Your task to perform on an android device: Search for "asus zenbook" on bestbuy.com, select the first entry, and add it to the cart. Image 0: 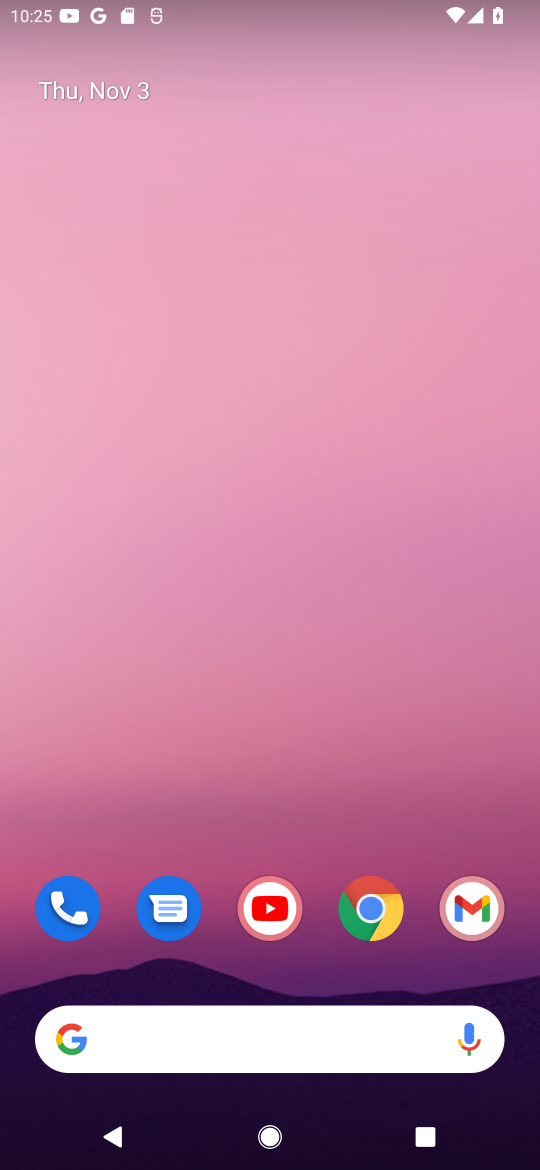
Step 0: click (379, 899)
Your task to perform on an android device: Search for "asus zenbook" on bestbuy.com, select the first entry, and add it to the cart. Image 1: 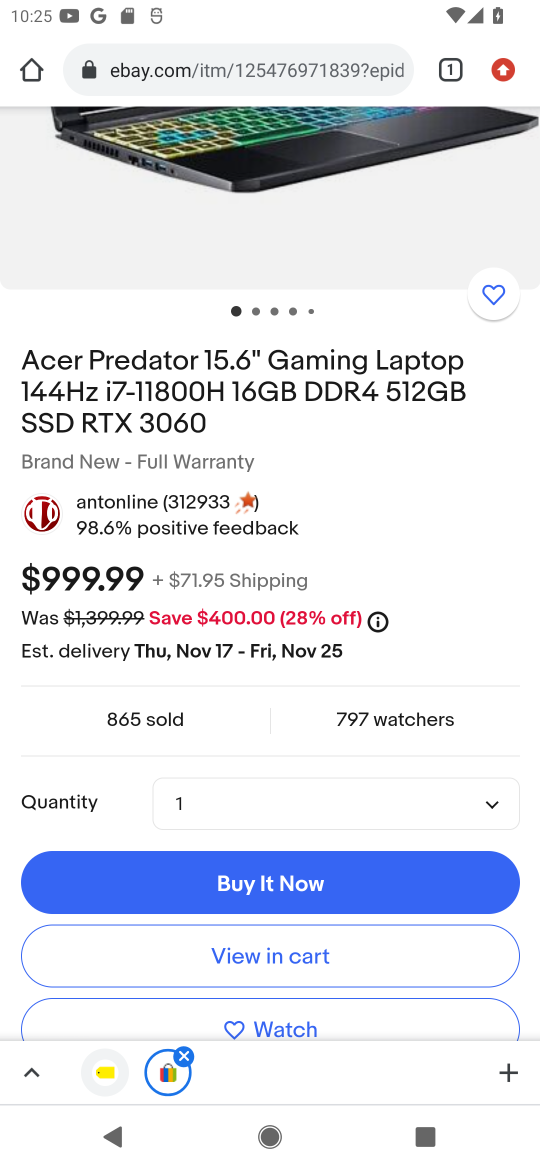
Step 1: click (245, 72)
Your task to perform on an android device: Search for "asus zenbook" on bestbuy.com, select the first entry, and add it to the cart. Image 2: 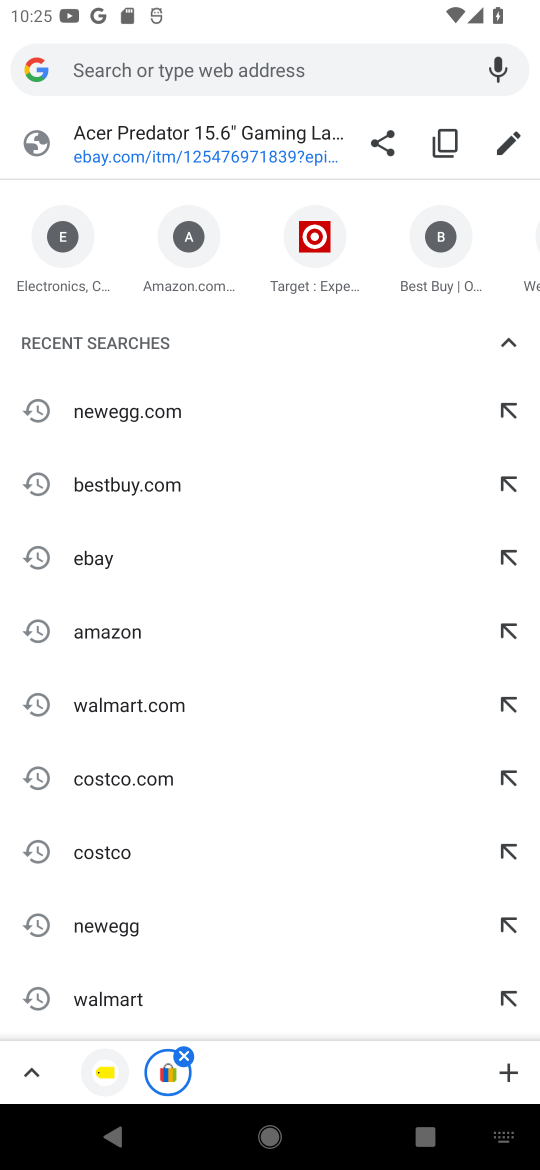
Step 2: click (130, 484)
Your task to perform on an android device: Search for "asus zenbook" on bestbuy.com, select the first entry, and add it to the cart. Image 3: 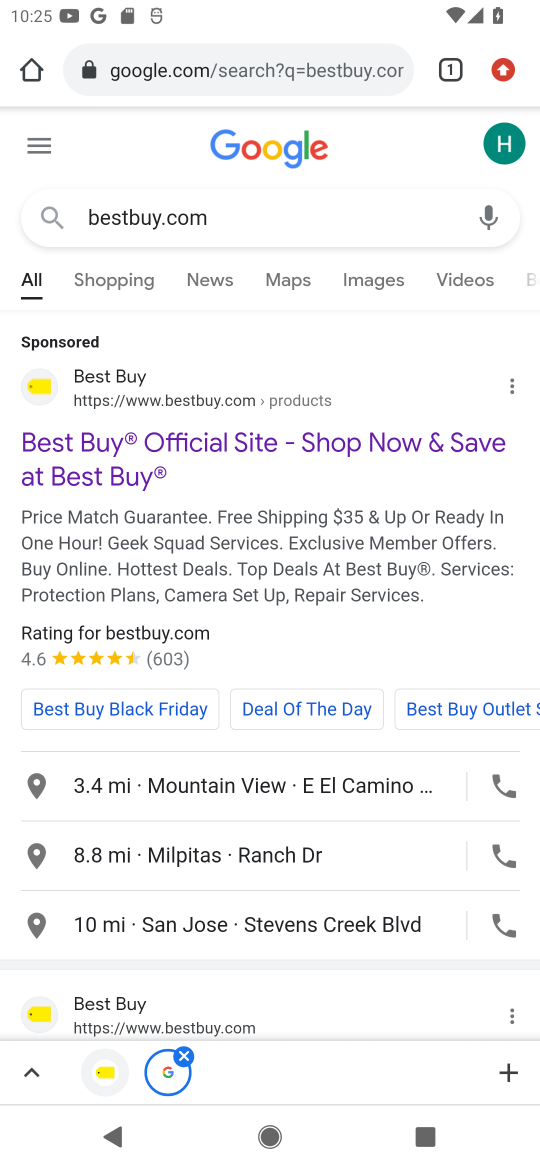
Step 3: click (215, 406)
Your task to perform on an android device: Search for "asus zenbook" on bestbuy.com, select the first entry, and add it to the cart. Image 4: 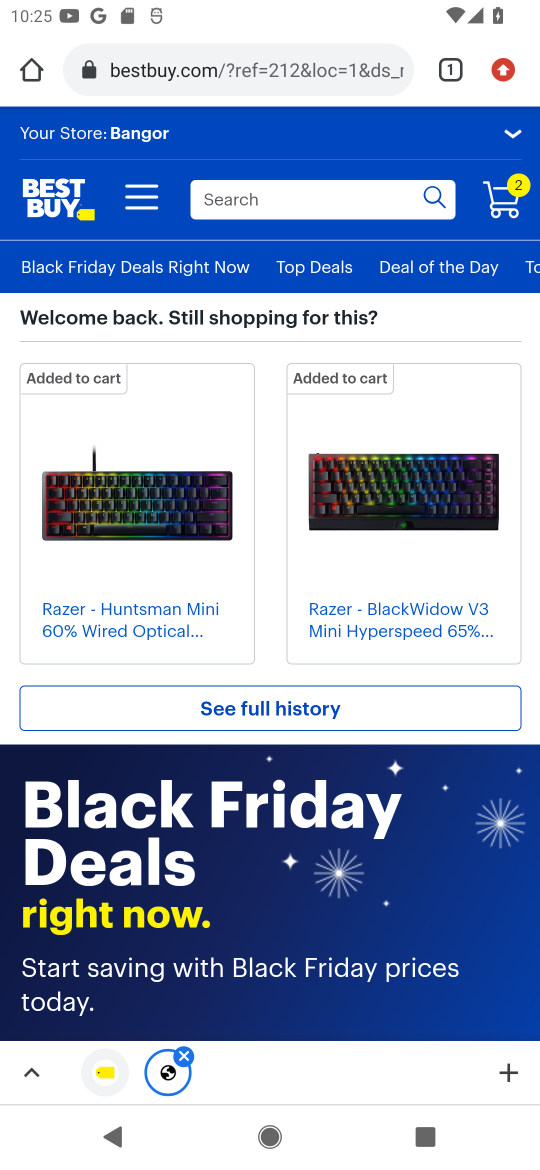
Step 4: click (325, 195)
Your task to perform on an android device: Search for "asus zenbook" on bestbuy.com, select the first entry, and add it to the cart. Image 5: 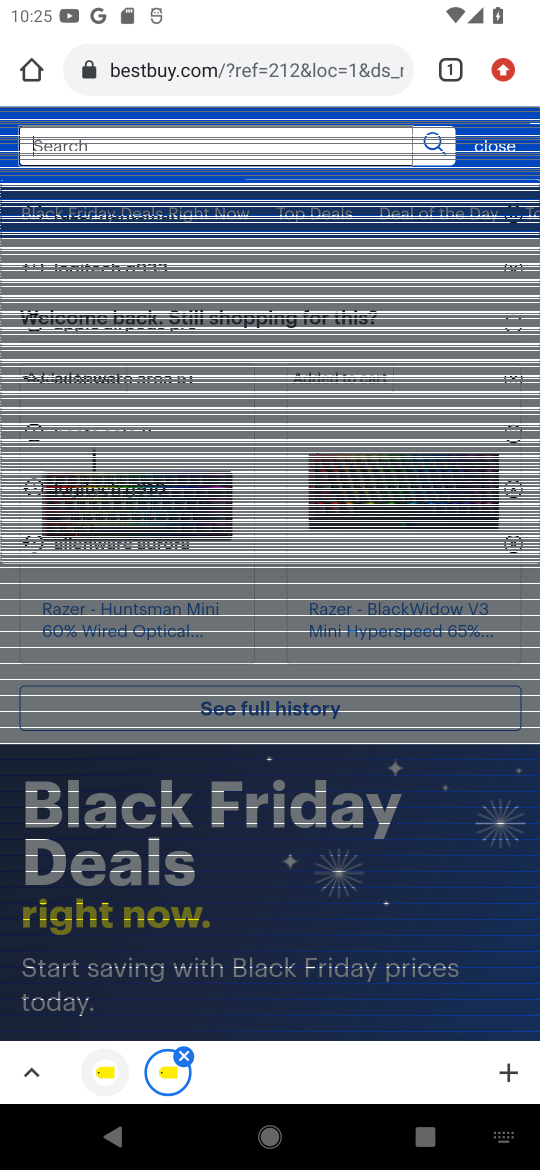
Step 5: press enter
Your task to perform on an android device: Search for "asus zenbook" on bestbuy.com, select the first entry, and add it to the cart. Image 6: 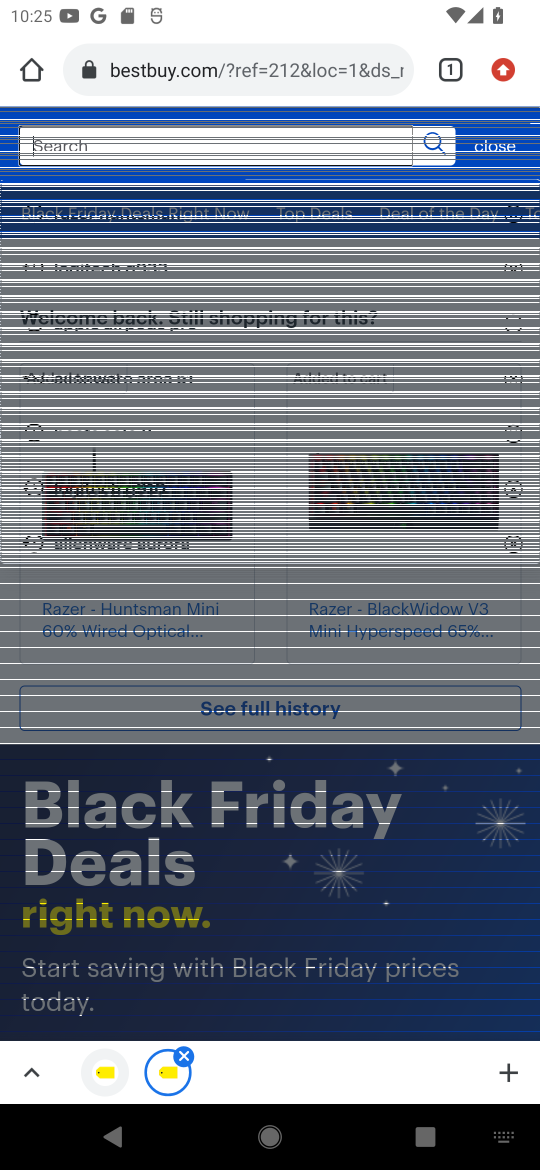
Step 6: type "asus zenbook"
Your task to perform on an android device: Search for "asus zenbook" on bestbuy.com, select the first entry, and add it to the cart. Image 7: 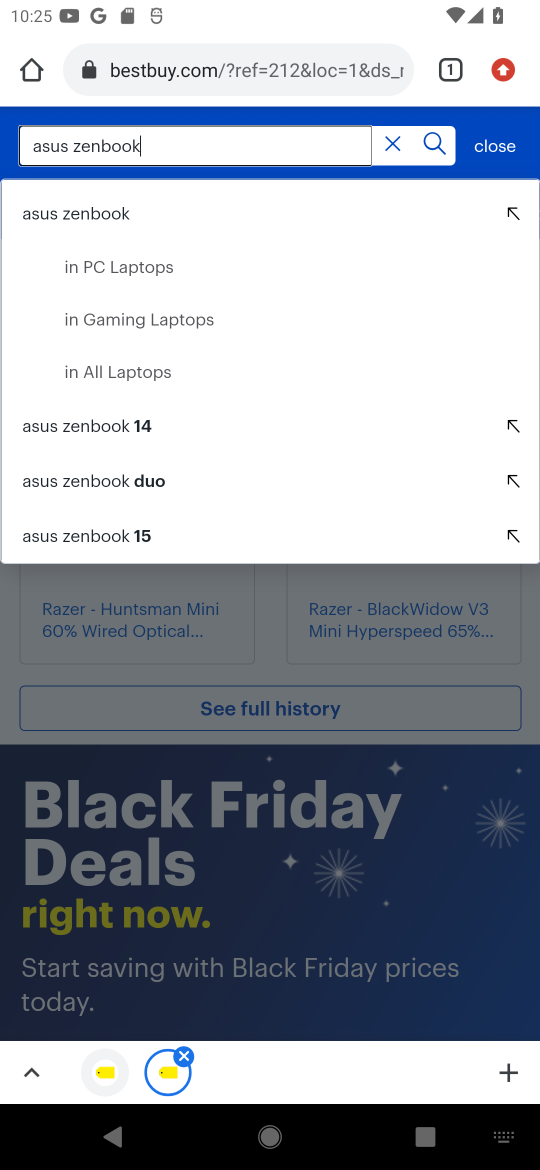
Step 7: click (83, 210)
Your task to perform on an android device: Search for "asus zenbook" on bestbuy.com, select the first entry, and add it to the cart. Image 8: 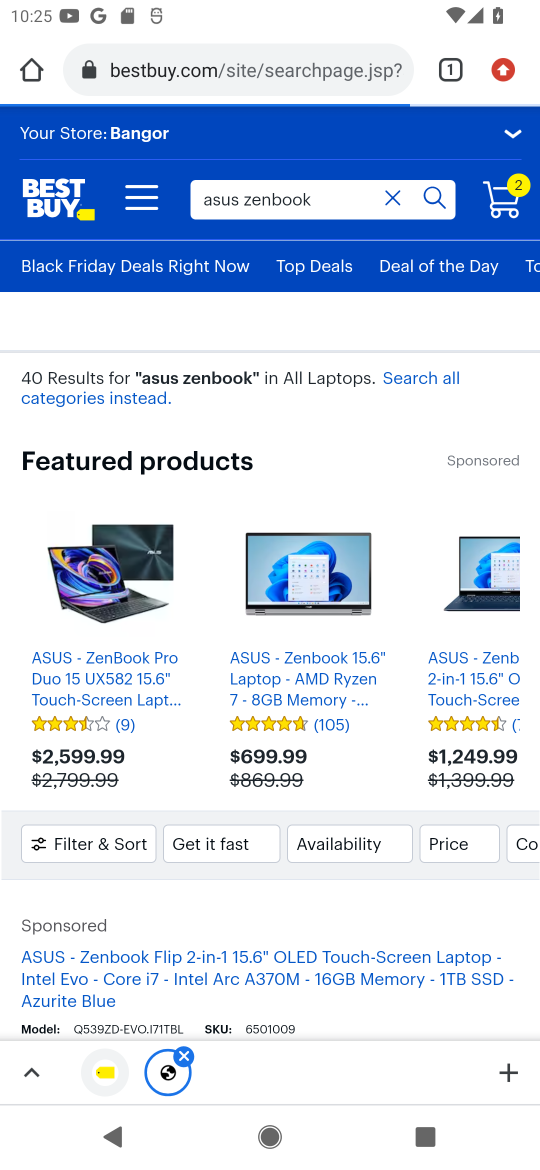
Step 8: drag from (338, 929) to (348, 578)
Your task to perform on an android device: Search for "asus zenbook" on bestbuy.com, select the first entry, and add it to the cart. Image 9: 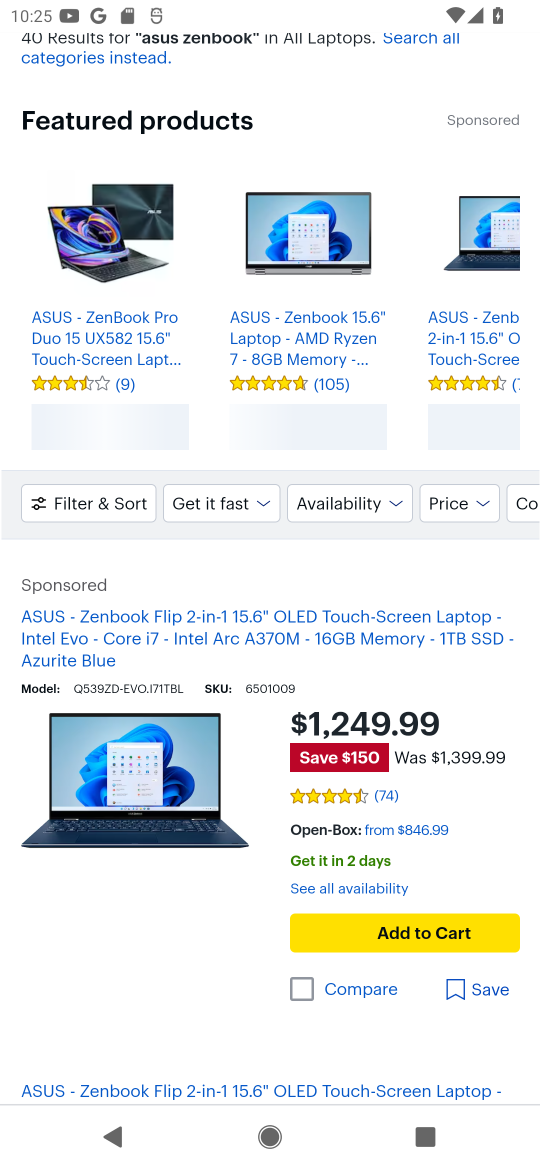
Step 9: click (123, 826)
Your task to perform on an android device: Search for "asus zenbook" on bestbuy.com, select the first entry, and add it to the cart. Image 10: 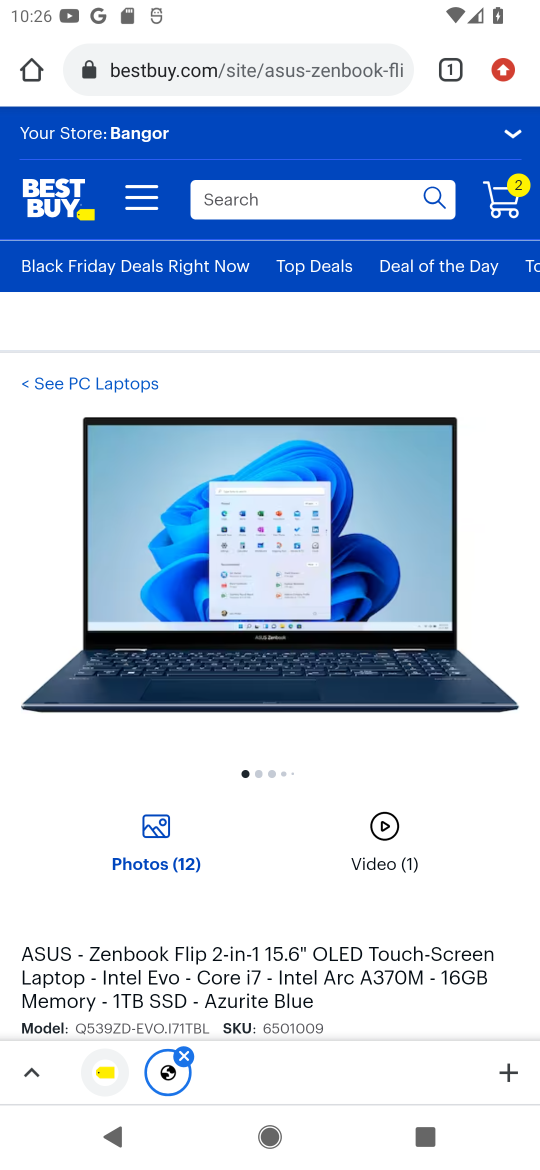
Step 10: drag from (340, 888) to (338, 497)
Your task to perform on an android device: Search for "asus zenbook" on bestbuy.com, select the first entry, and add it to the cart. Image 11: 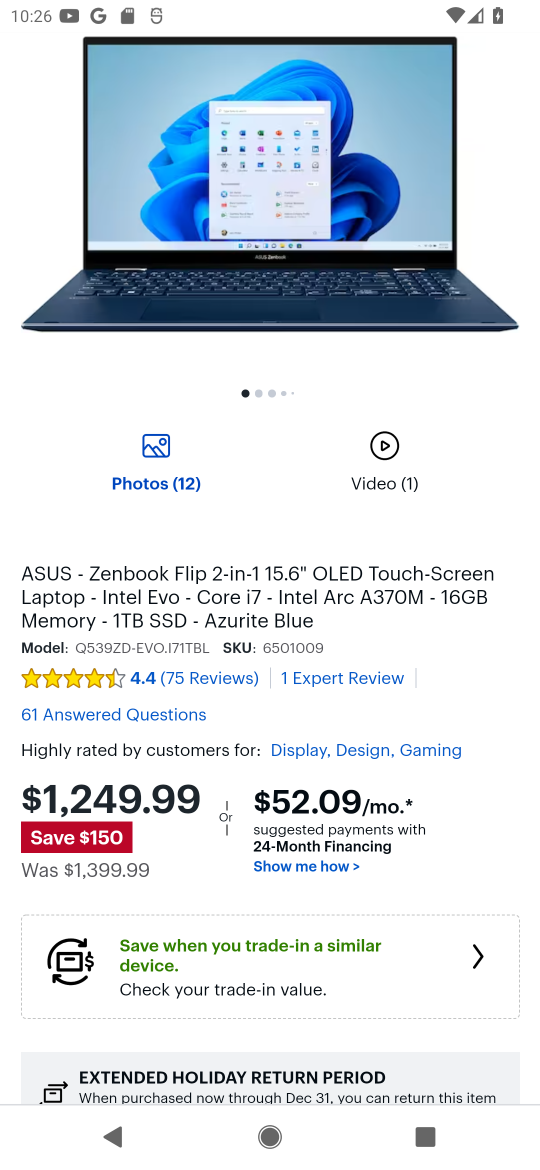
Step 11: drag from (359, 846) to (354, 505)
Your task to perform on an android device: Search for "asus zenbook" on bestbuy.com, select the first entry, and add it to the cart. Image 12: 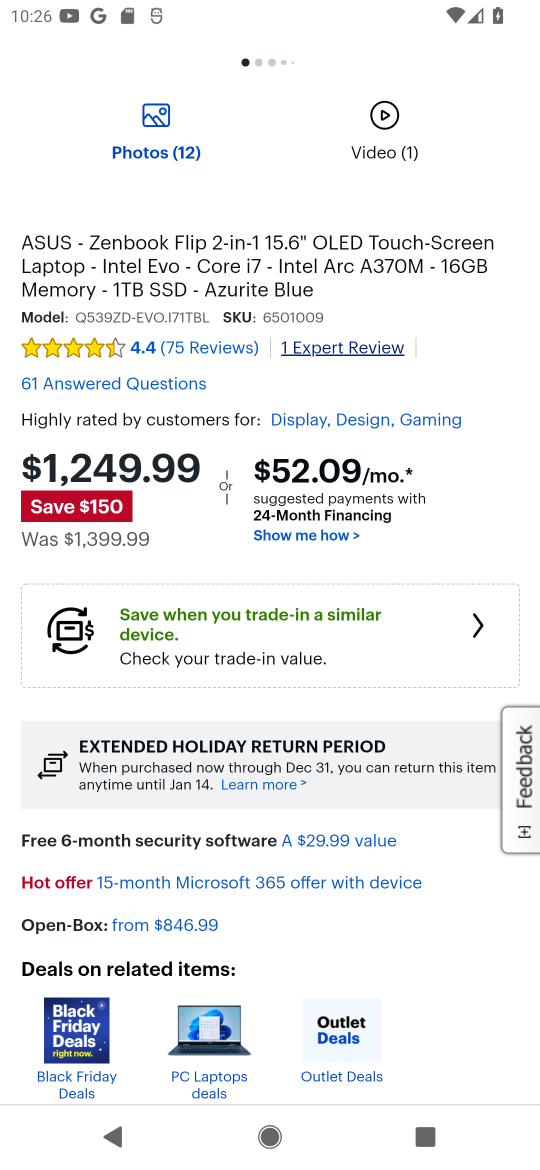
Step 12: drag from (420, 878) to (386, 417)
Your task to perform on an android device: Search for "asus zenbook" on bestbuy.com, select the first entry, and add it to the cart. Image 13: 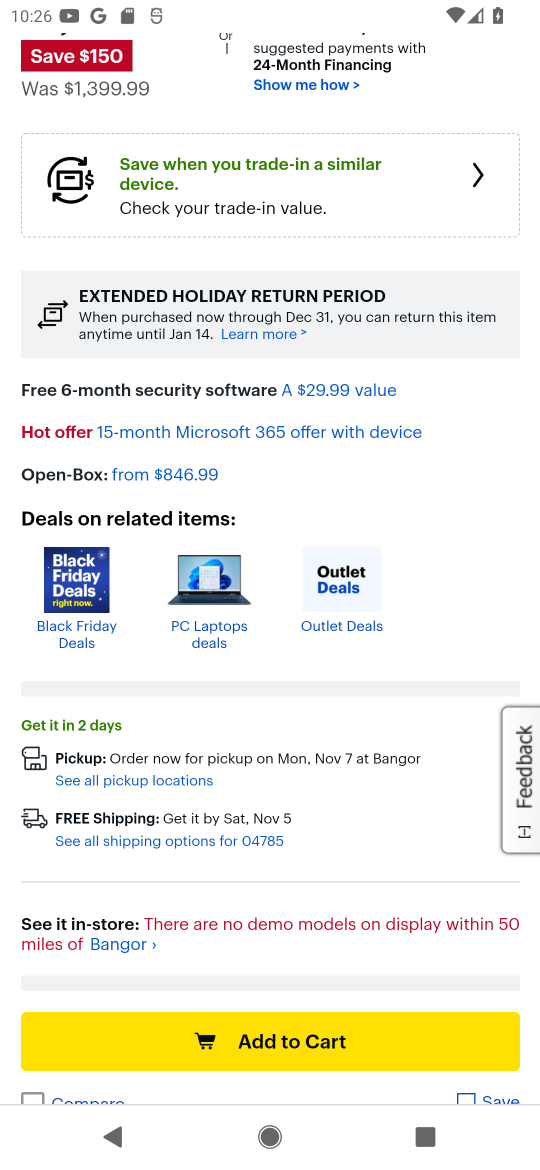
Step 13: click (288, 1040)
Your task to perform on an android device: Search for "asus zenbook" on bestbuy.com, select the first entry, and add it to the cart. Image 14: 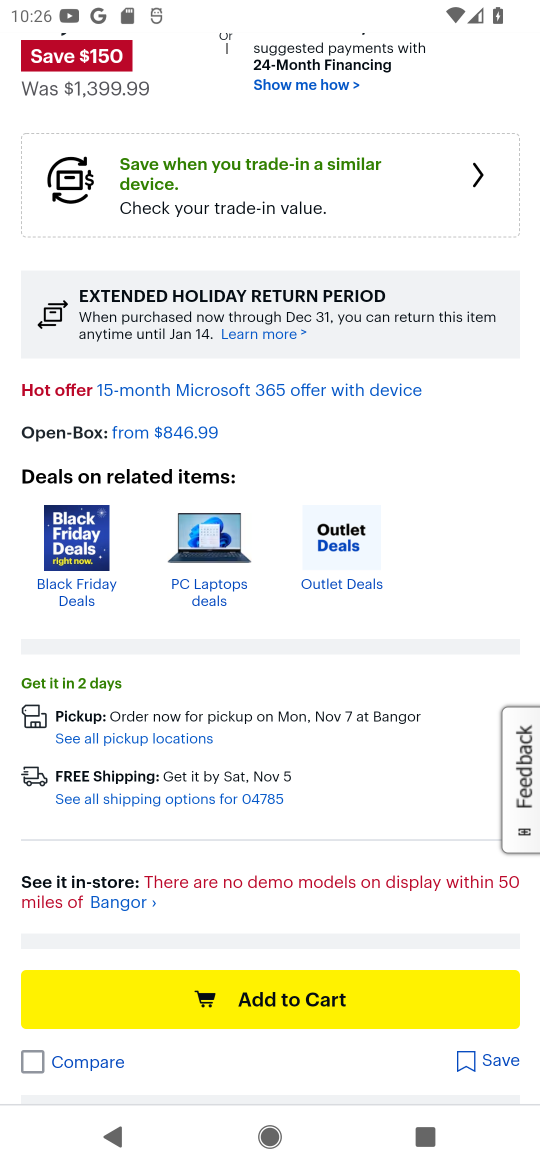
Step 14: task complete